Your task to perform on an android device: Open calendar and show me the second week of next month Image 0: 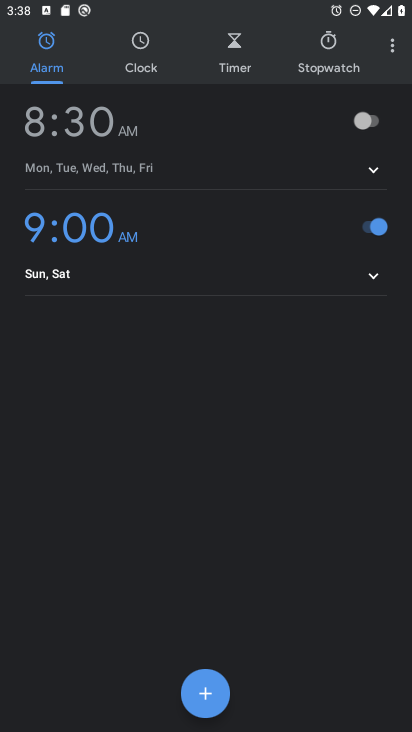
Step 0: press home button
Your task to perform on an android device: Open calendar and show me the second week of next month Image 1: 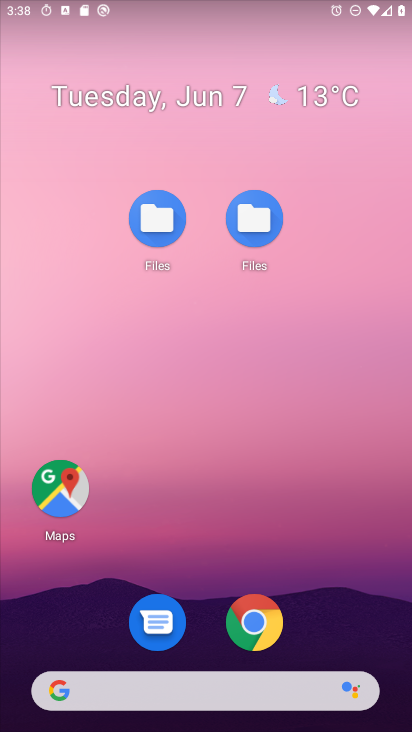
Step 1: drag from (351, 584) to (404, 89)
Your task to perform on an android device: Open calendar and show me the second week of next month Image 2: 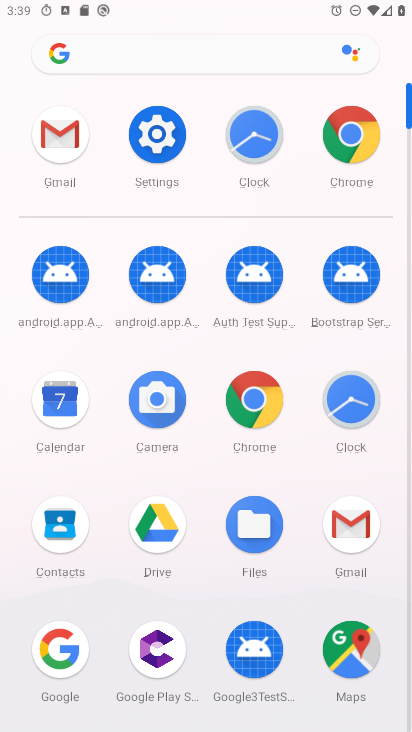
Step 2: click (65, 402)
Your task to perform on an android device: Open calendar and show me the second week of next month Image 3: 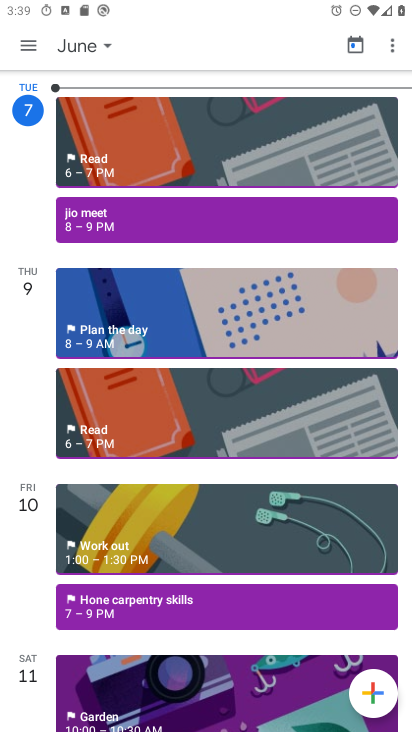
Step 3: task complete